Your task to perform on an android device: Go to sound settings Image 0: 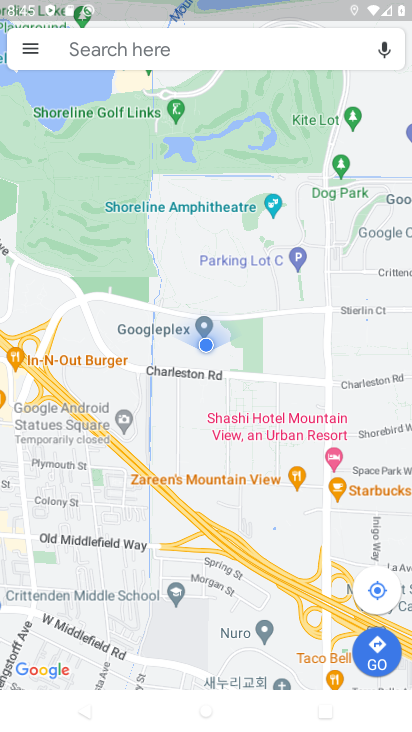
Step 0: press home button
Your task to perform on an android device: Go to sound settings Image 1: 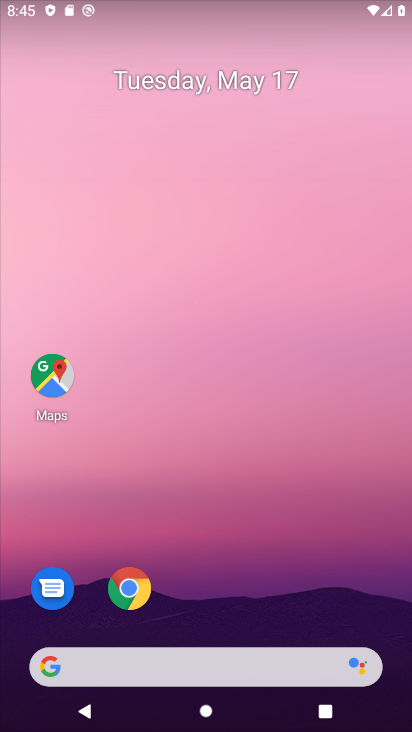
Step 1: drag from (386, 436) to (392, 183)
Your task to perform on an android device: Go to sound settings Image 2: 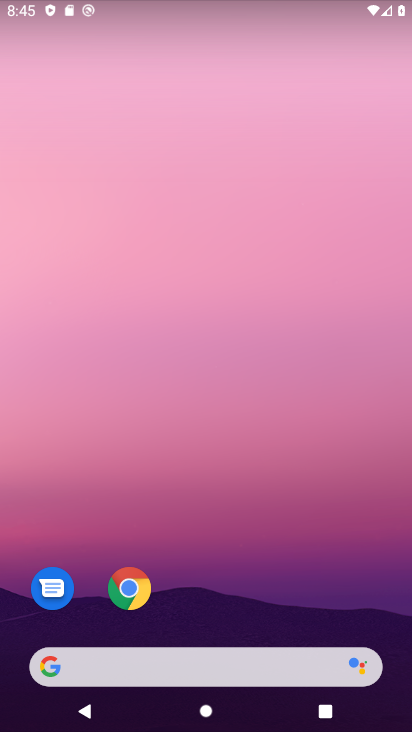
Step 2: drag from (372, 427) to (351, 129)
Your task to perform on an android device: Go to sound settings Image 3: 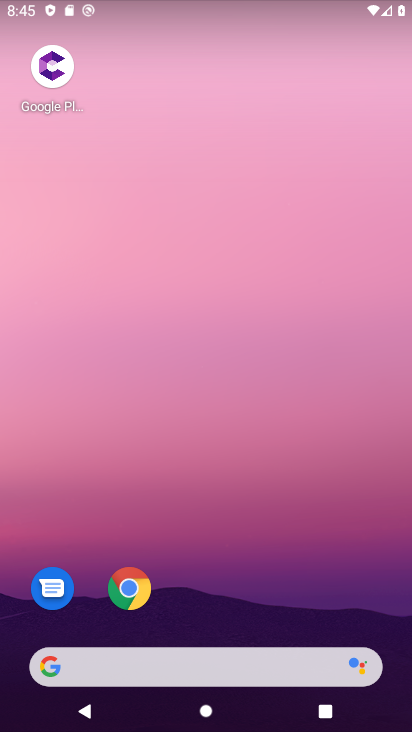
Step 3: drag from (363, 456) to (359, 181)
Your task to perform on an android device: Go to sound settings Image 4: 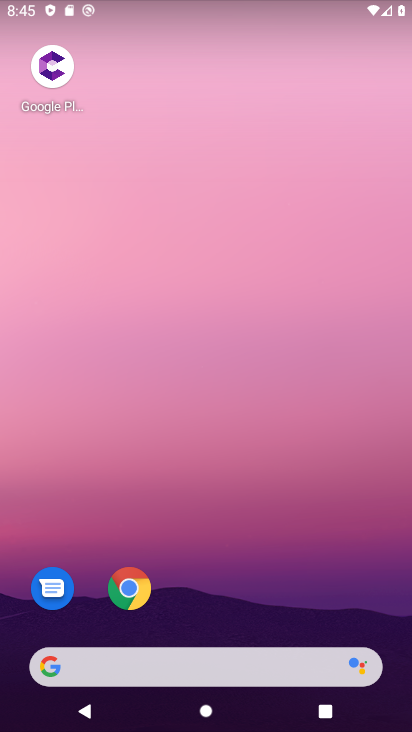
Step 4: drag from (396, 699) to (411, 419)
Your task to perform on an android device: Go to sound settings Image 5: 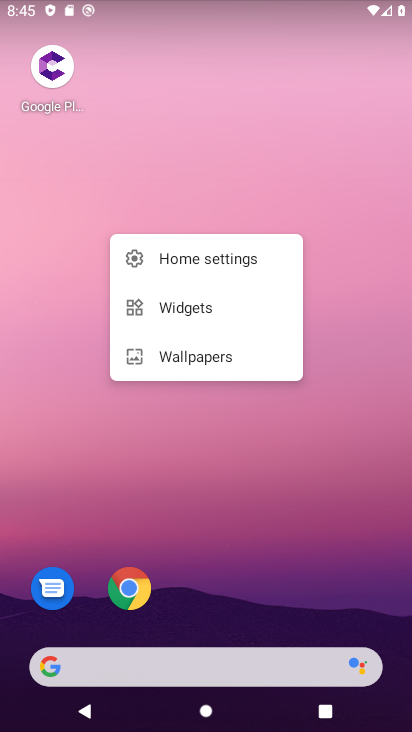
Step 5: drag from (396, 694) to (366, 261)
Your task to perform on an android device: Go to sound settings Image 6: 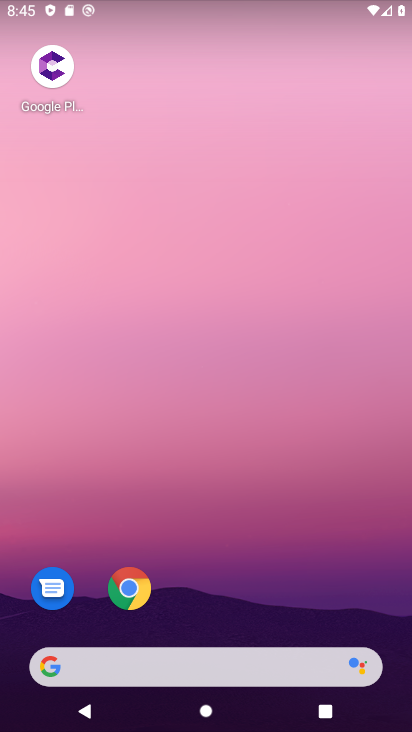
Step 6: drag from (388, 659) to (397, 251)
Your task to perform on an android device: Go to sound settings Image 7: 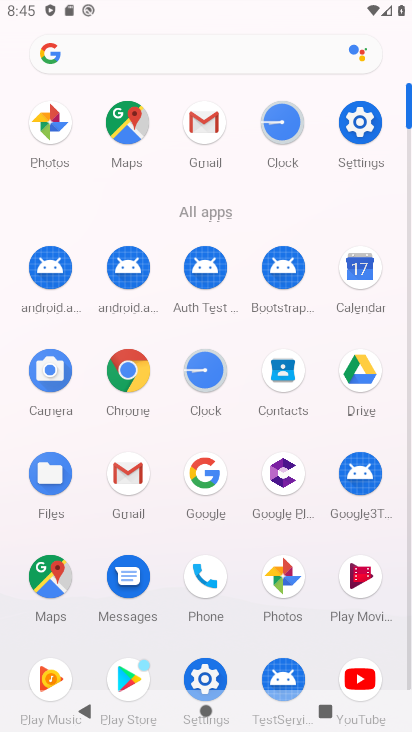
Step 7: click (204, 673)
Your task to perform on an android device: Go to sound settings Image 8: 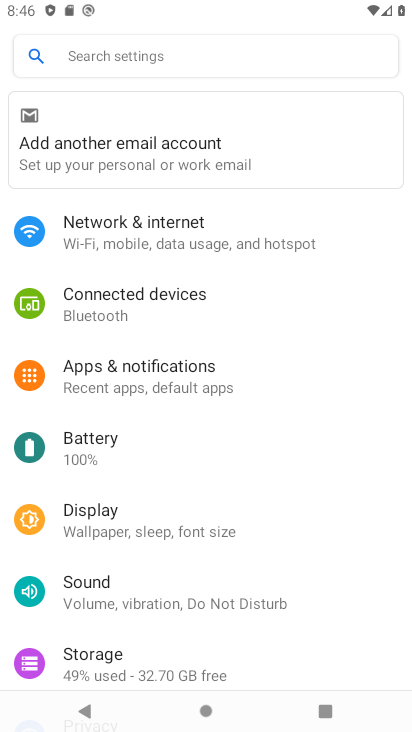
Step 8: click (88, 587)
Your task to perform on an android device: Go to sound settings Image 9: 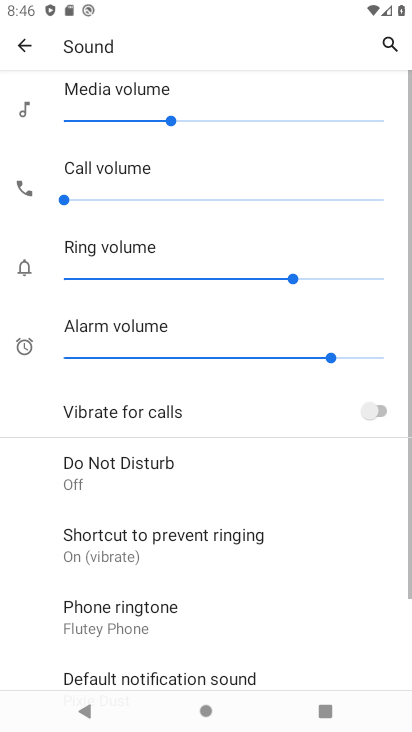
Step 9: task complete